Your task to perform on an android device: Open display settings Image 0: 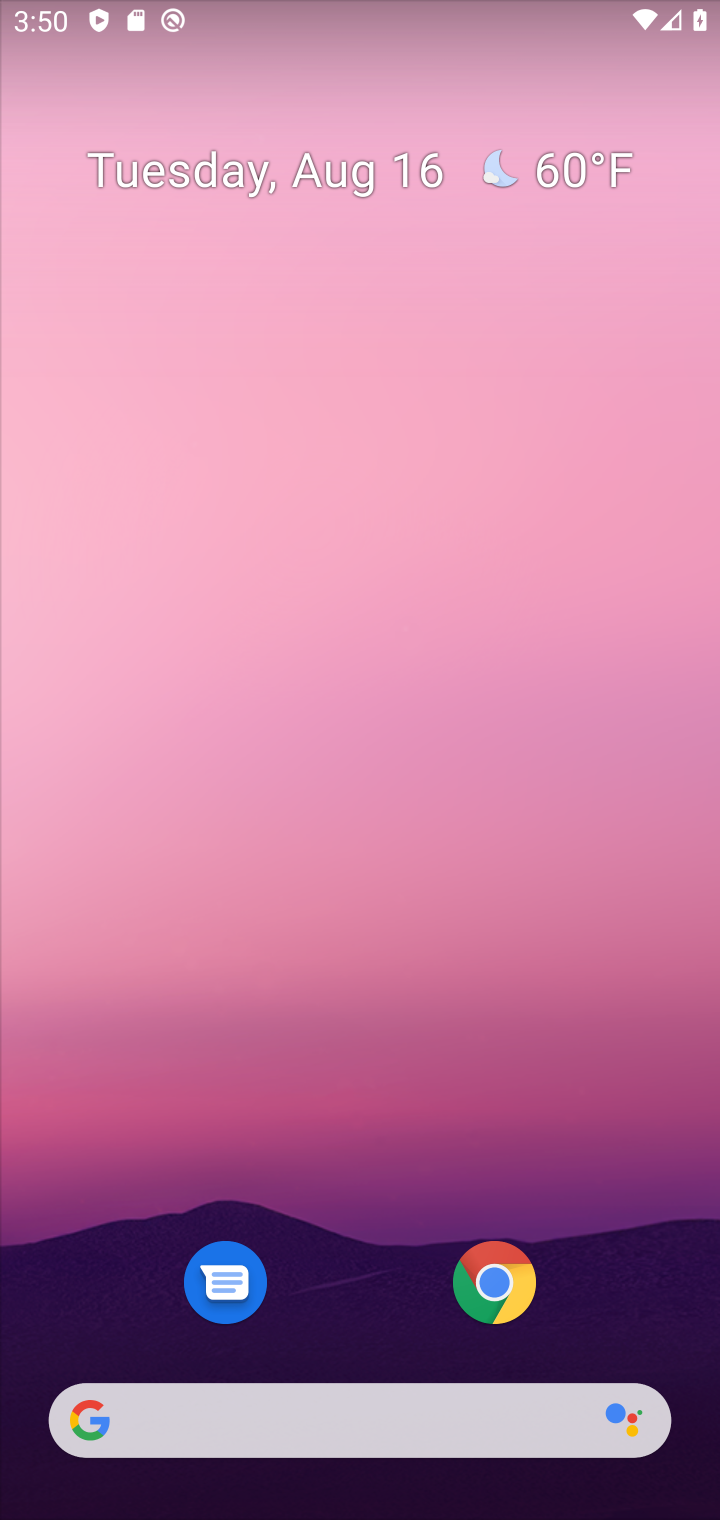
Step 0: drag from (411, 1318) to (474, 9)
Your task to perform on an android device: Open display settings Image 1: 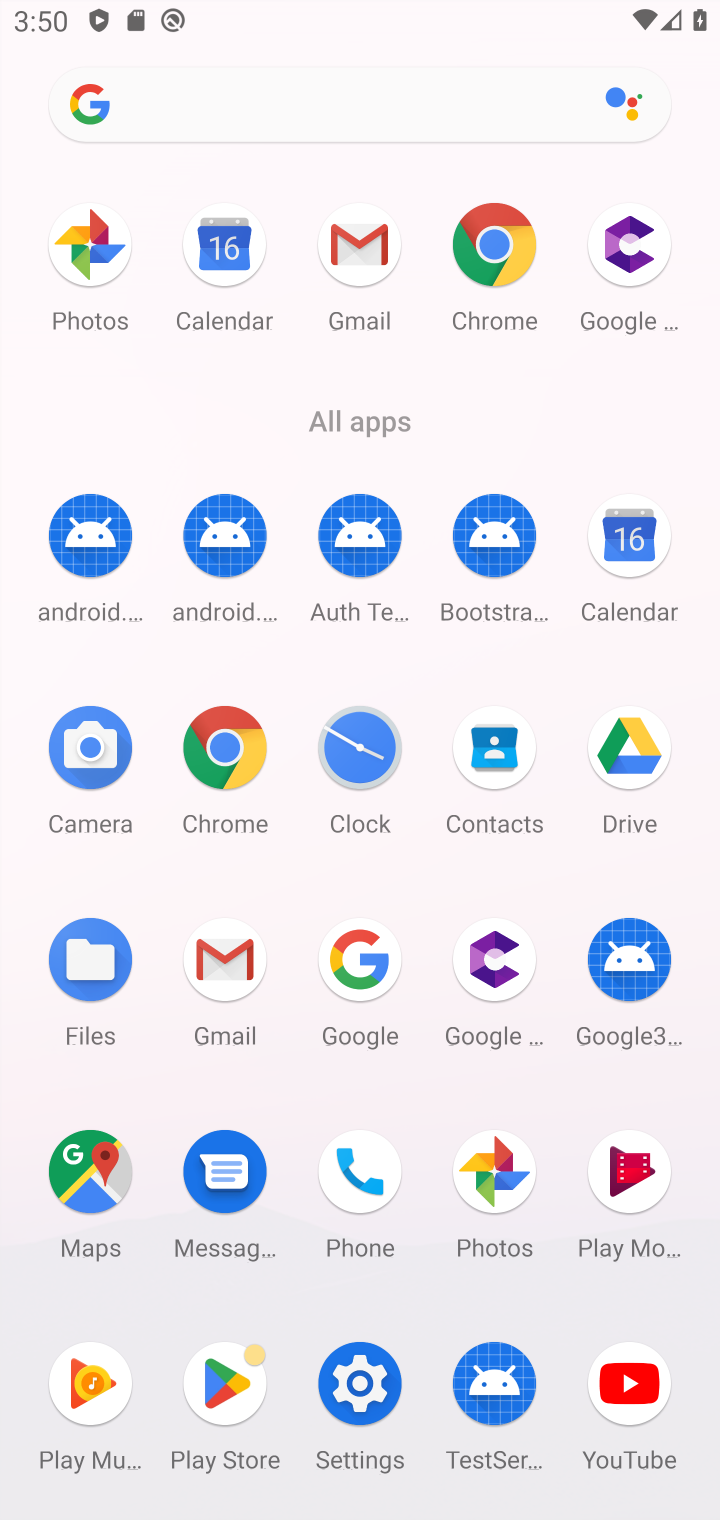
Step 1: click (358, 1373)
Your task to perform on an android device: Open display settings Image 2: 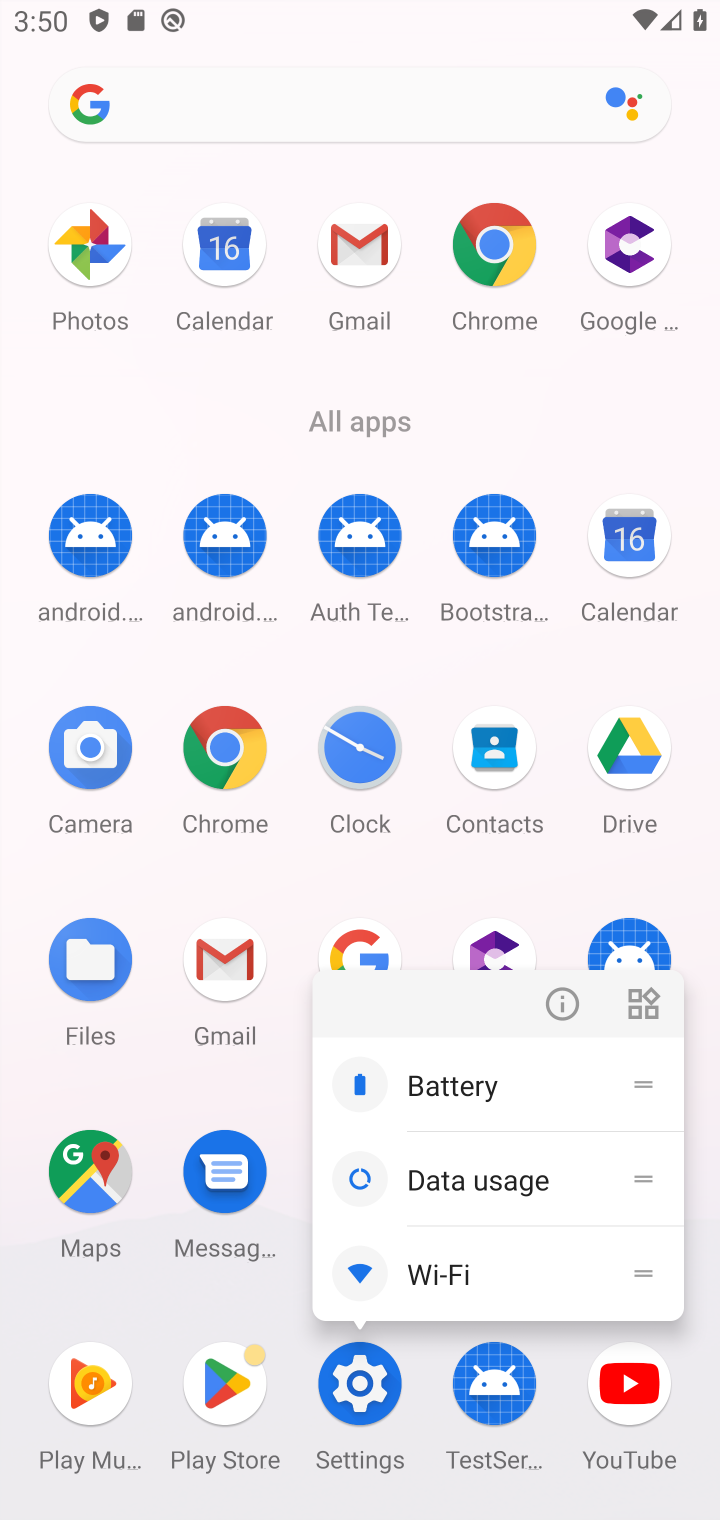
Step 2: click (350, 1371)
Your task to perform on an android device: Open display settings Image 3: 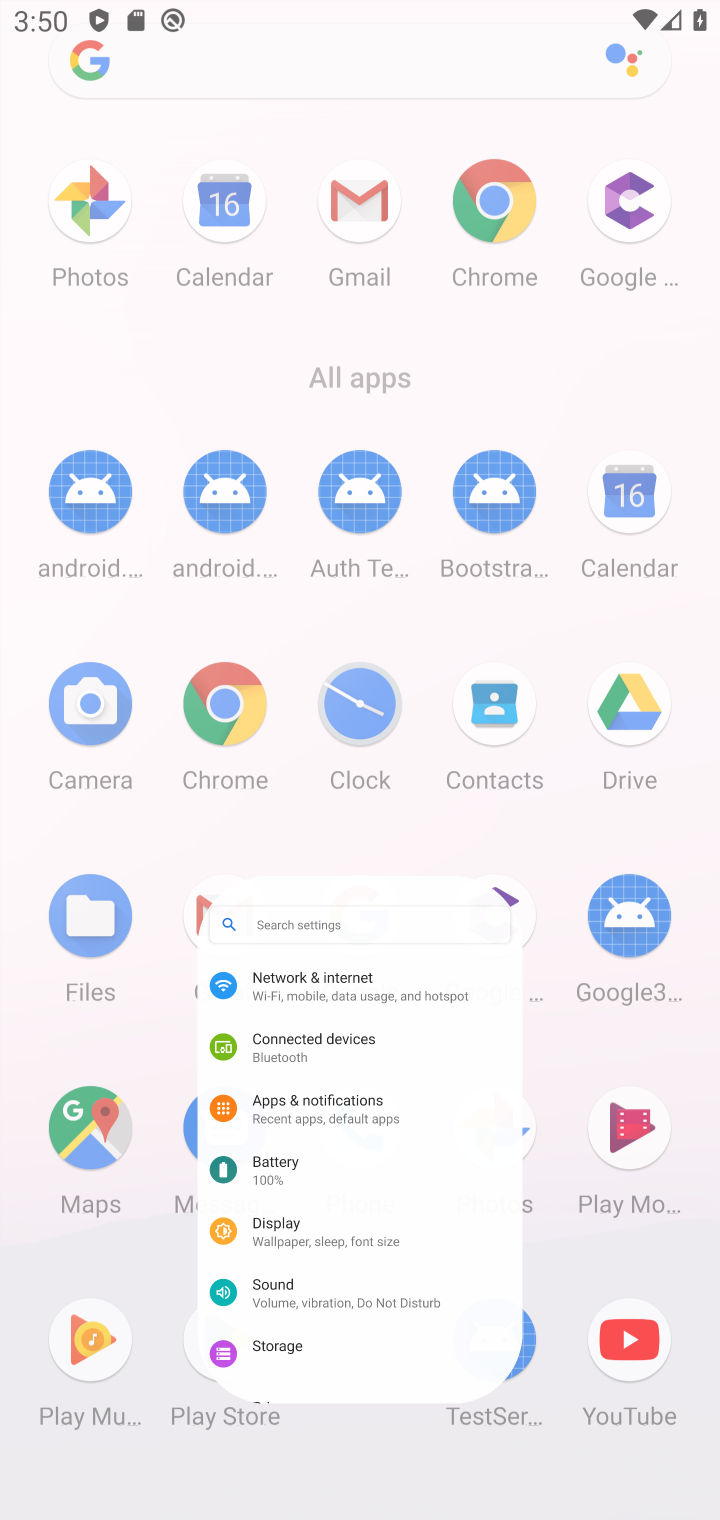
Step 3: click (366, 1380)
Your task to perform on an android device: Open display settings Image 4: 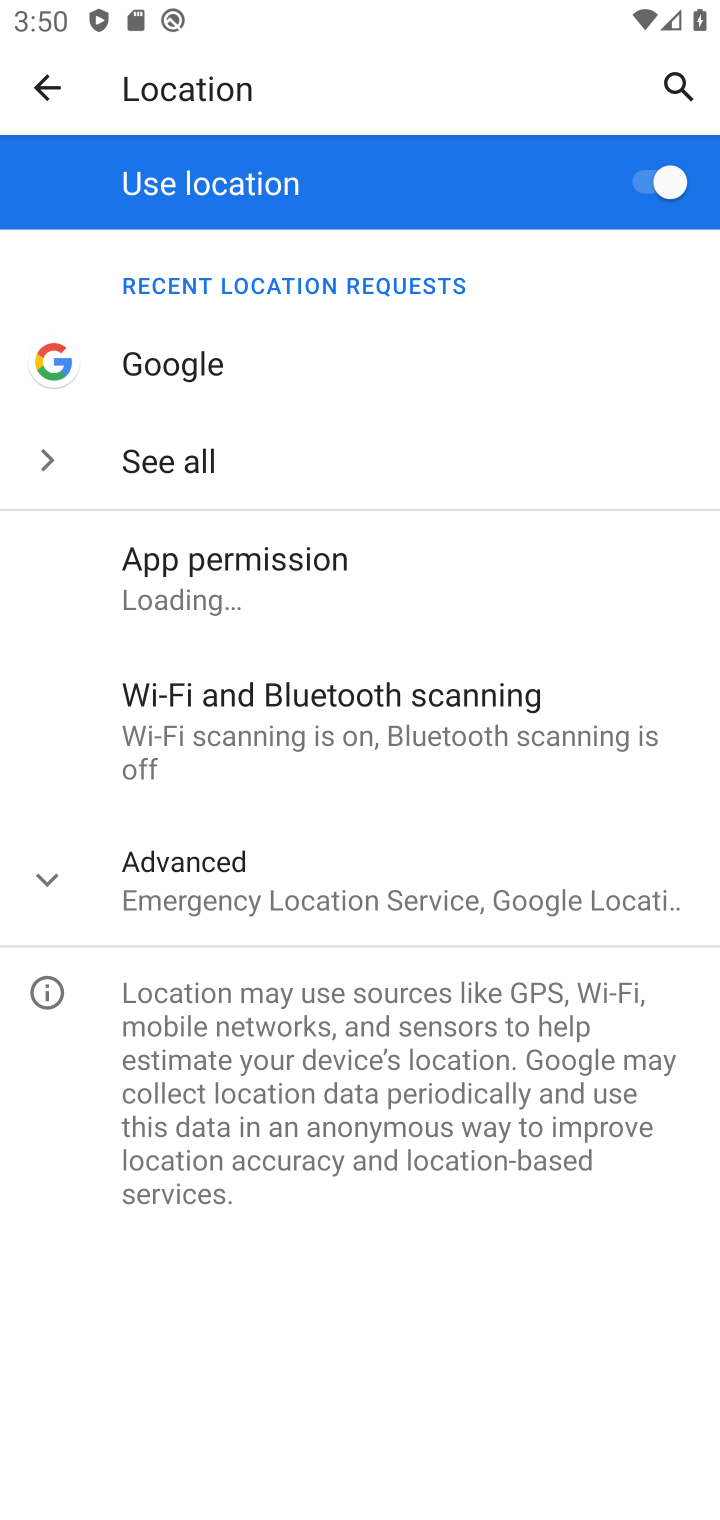
Step 4: press back button
Your task to perform on an android device: Open display settings Image 5: 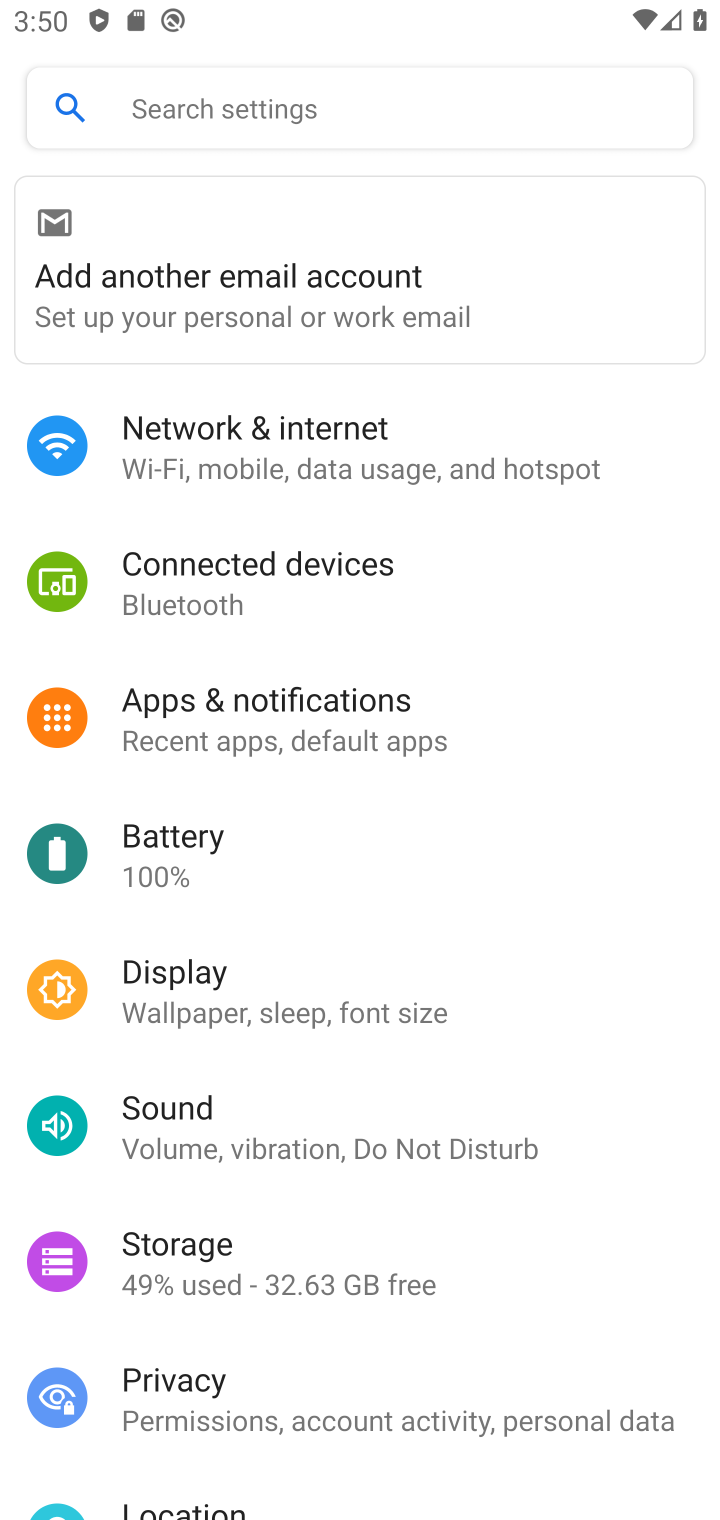
Step 5: click (179, 986)
Your task to perform on an android device: Open display settings Image 6: 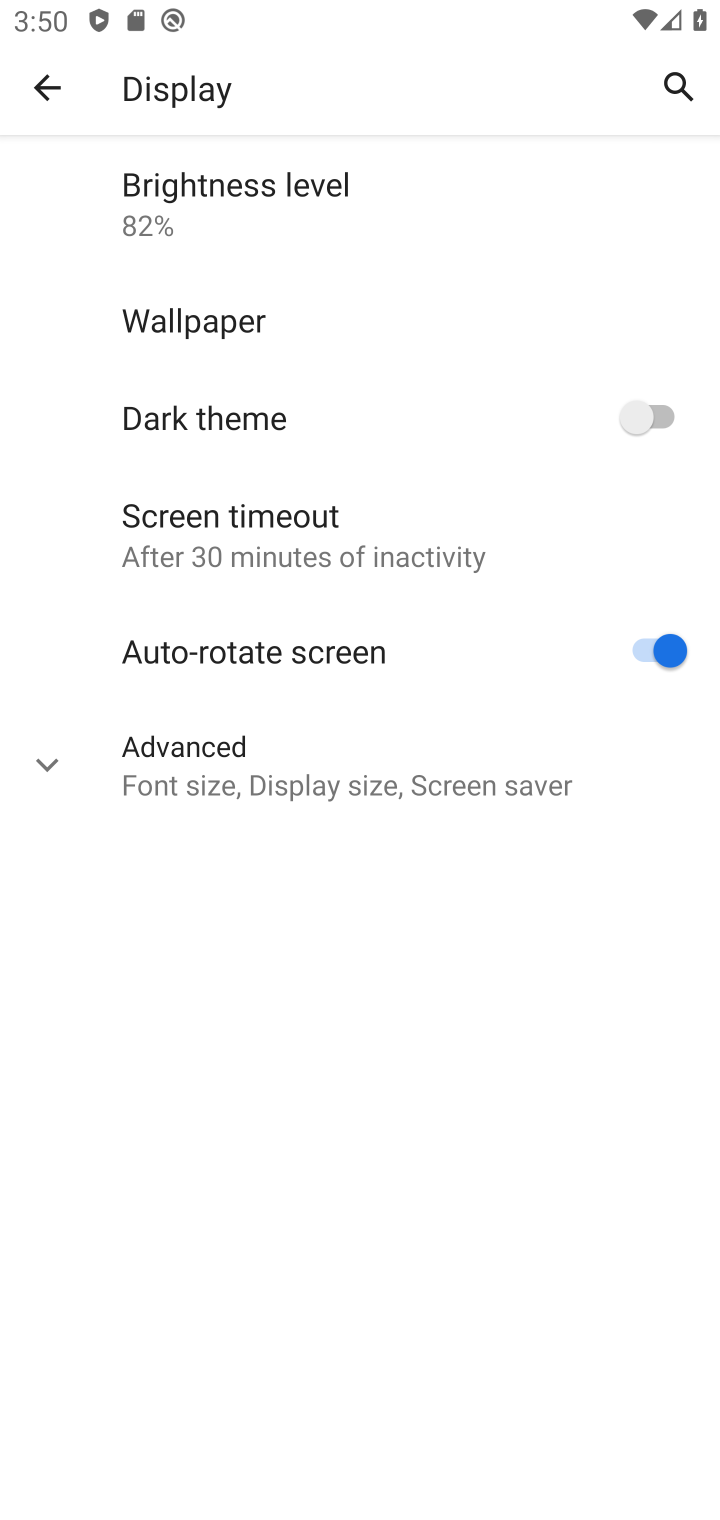
Step 6: task complete